Your task to perform on an android device: delete the emails in spam in the gmail app Image 0: 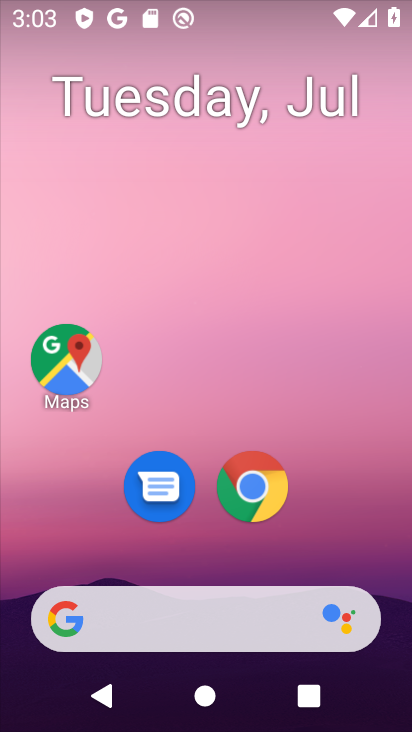
Step 0: drag from (209, 562) to (260, 10)
Your task to perform on an android device: delete the emails in spam in the gmail app Image 1: 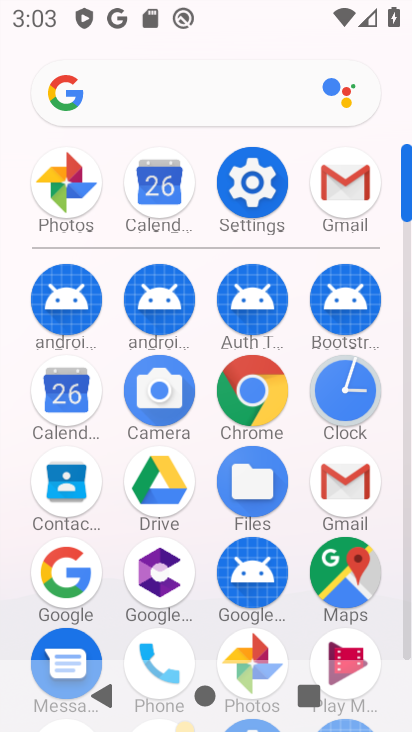
Step 1: click (341, 179)
Your task to perform on an android device: delete the emails in spam in the gmail app Image 2: 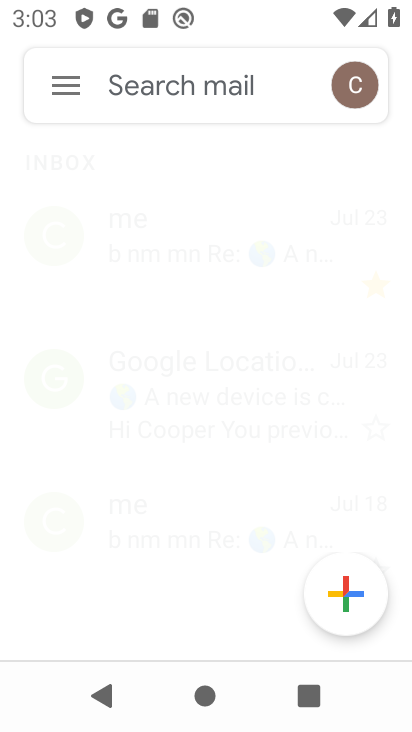
Step 2: click (74, 78)
Your task to perform on an android device: delete the emails in spam in the gmail app Image 3: 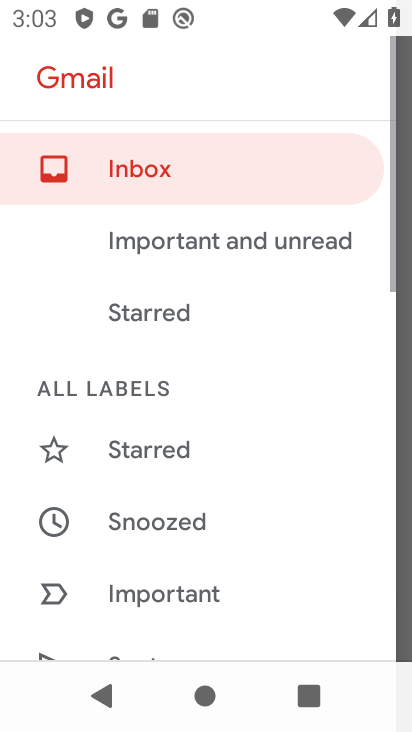
Step 3: drag from (196, 570) to (342, 0)
Your task to perform on an android device: delete the emails in spam in the gmail app Image 4: 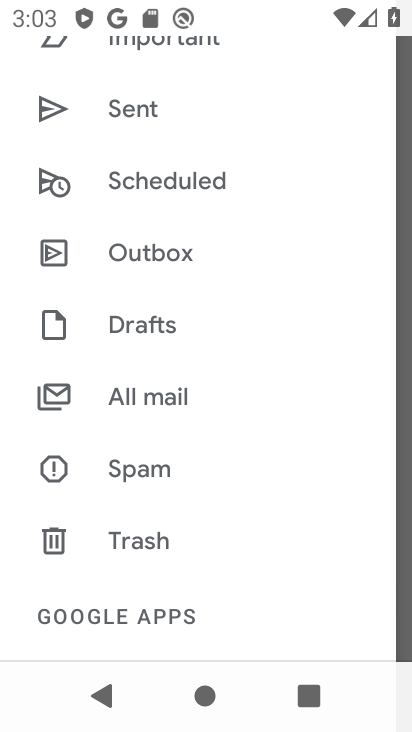
Step 4: click (137, 482)
Your task to perform on an android device: delete the emails in spam in the gmail app Image 5: 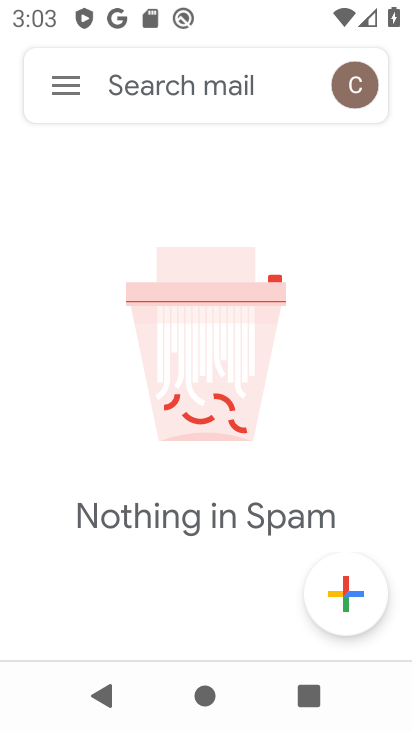
Step 5: task complete